Your task to perform on an android device: Check the weather Image 0: 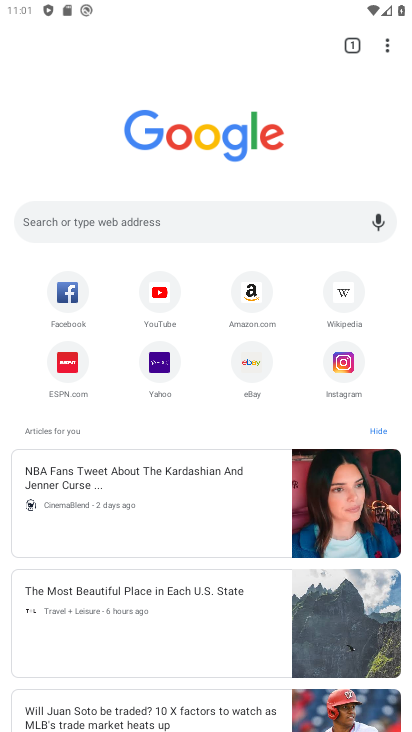
Step 0: press home button
Your task to perform on an android device: Check the weather Image 1: 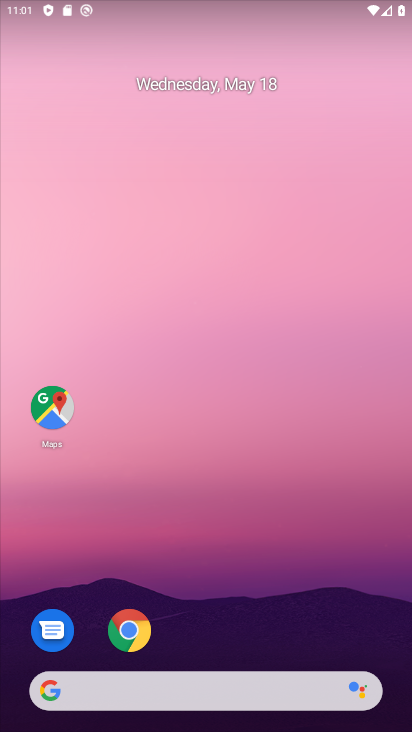
Step 1: click (110, 682)
Your task to perform on an android device: Check the weather Image 2: 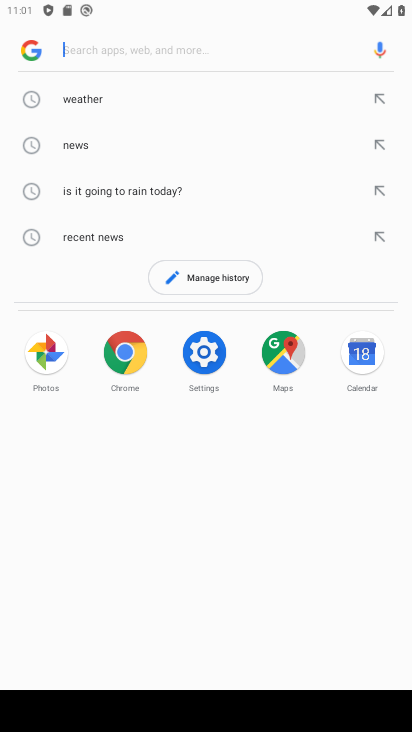
Step 2: click (106, 104)
Your task to perform on an android device: Check the weather Image 3: 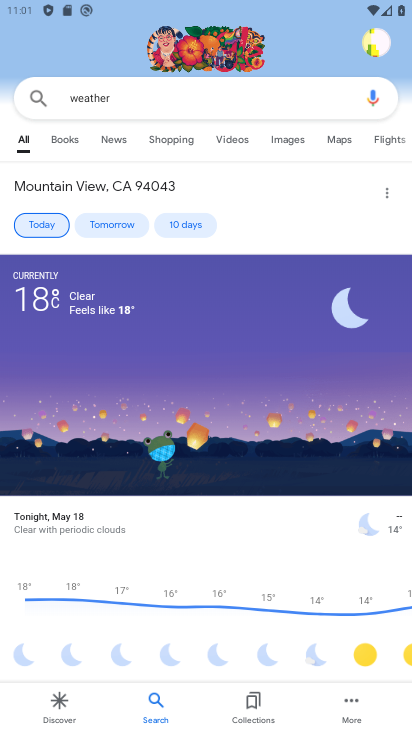
Step 3: task complete